Your task to perform on an android device: add a contact in the contacts app Image 0: 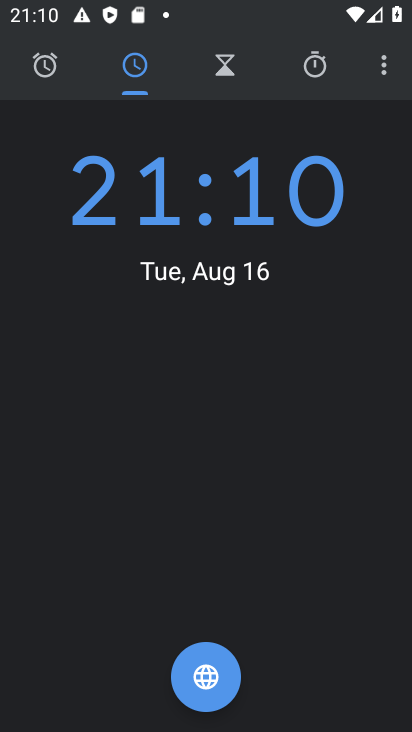
Step 0: press back button
Your task to perform on an android device: add a contact in the contacts app Image 1: 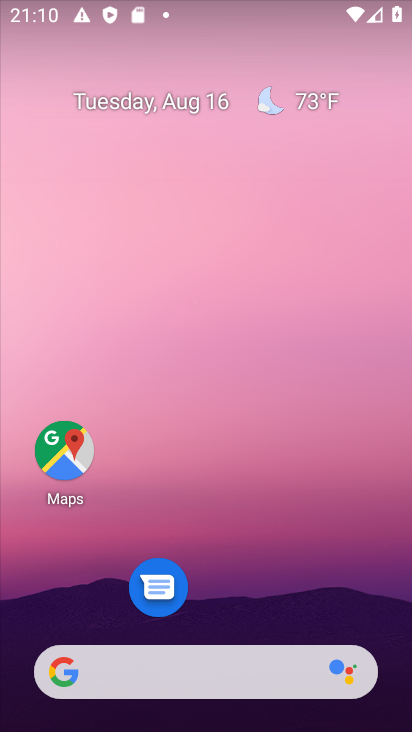
Step 1: drag from (231, 614) to (226, 61)
Your task to perform on an android device: add a contact in the contacts app Image 2: 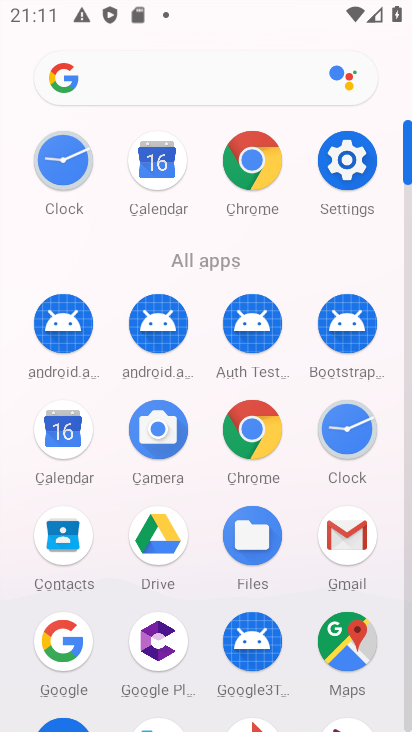
Step 2: drag from (215, 580) to (160, 122)
Your task to perform on an android device: add a contact in the contacts app Image 3: 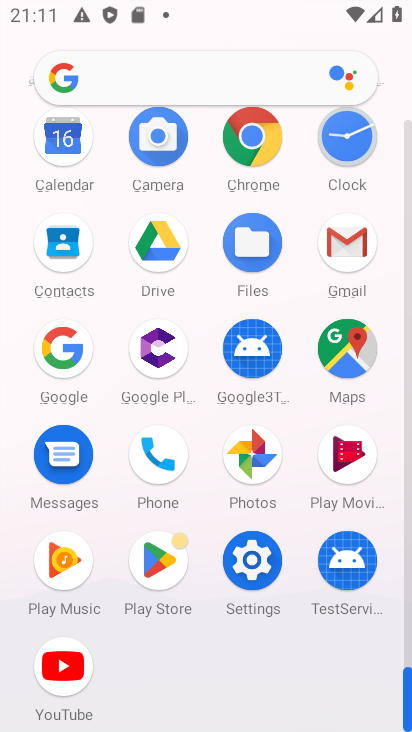
Step 3: click (168, 464)
Your task to perform on an android device: add a contact in the contacts app Image 4: 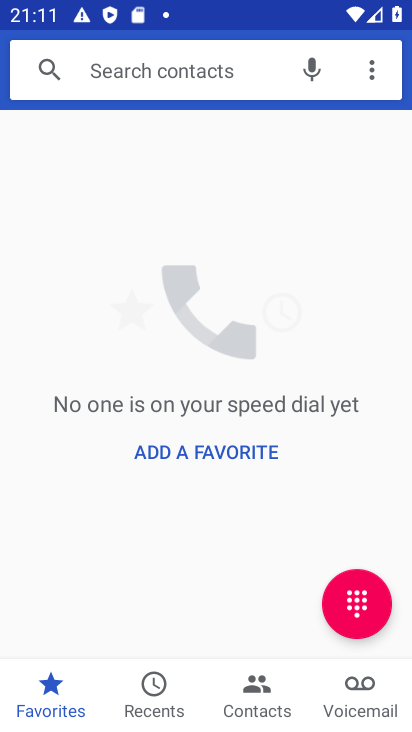
Step 4: click (236, 696)
Your task to perform on an android device: add a contact in the contacts app Image 5: 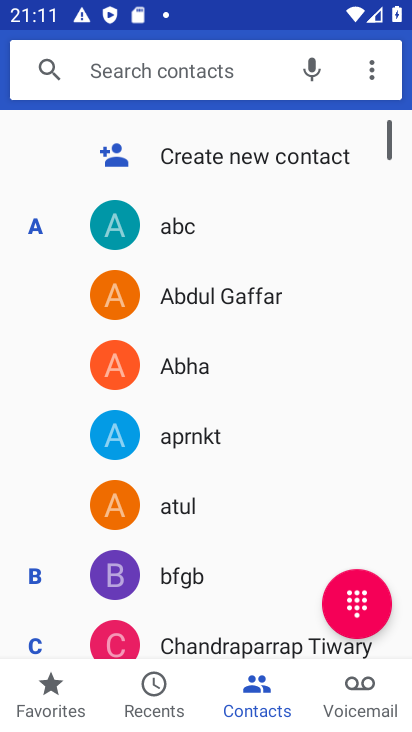
Step 5: click (292, 171)
Your task to perform on an android device: add a contact in the contacts app Image 6: 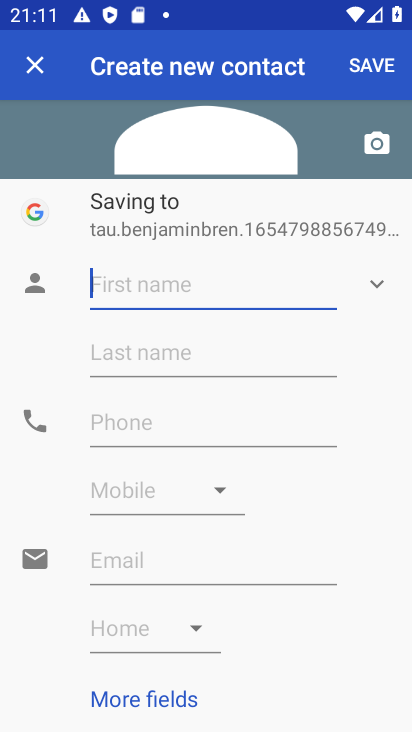
Step 6: type "ki"
Your task to perform on an android device: add a contact in the contacts app Image 7: 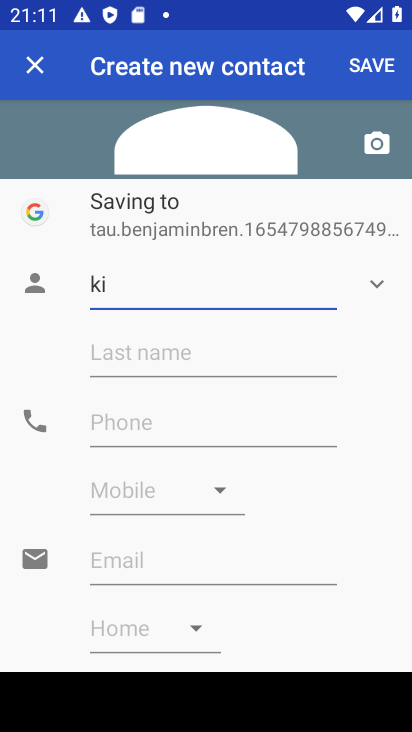
Step 7: click (167, 417)
Your task to perform on an android device: add a contact in the contacts app Image 8: 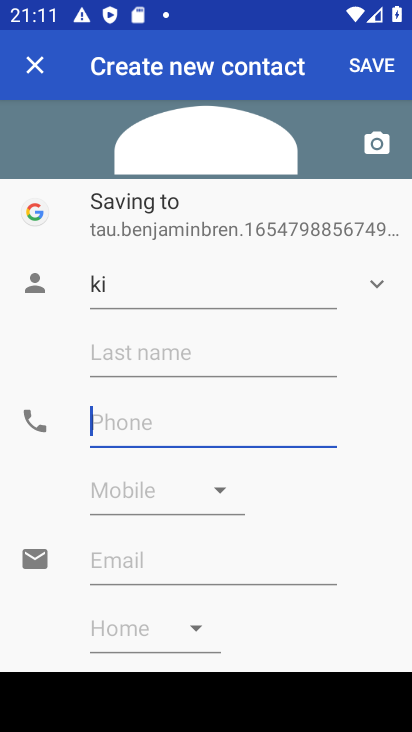
Step 8: type "948"
Your task to perform on an android device: add a contact in the contacts app Image 9: 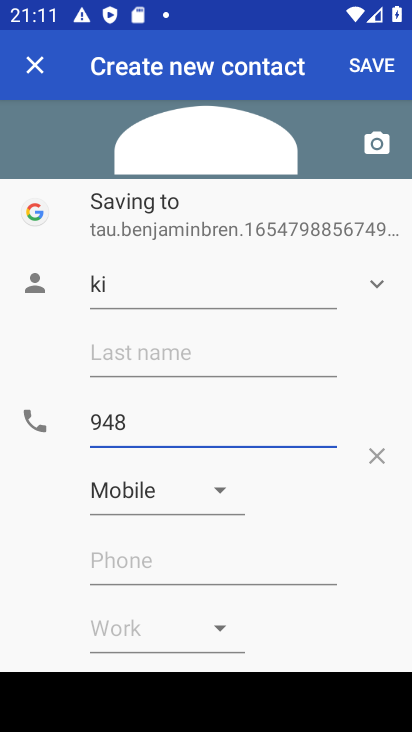
Step 9: click (362, 62)
Your task to perform on an android device: add a contact in the contacts app Image 10: 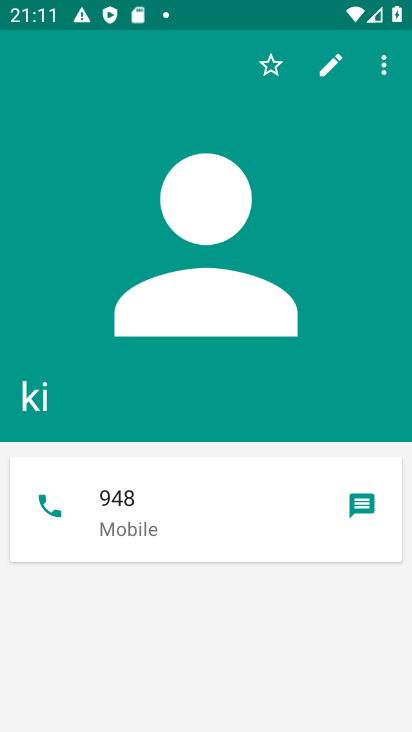
Step 10: task complete